Your task to perform on an android device: View the shopping cart on costco.com. Add "dell alienware" to the cart on costco.com Image 0: 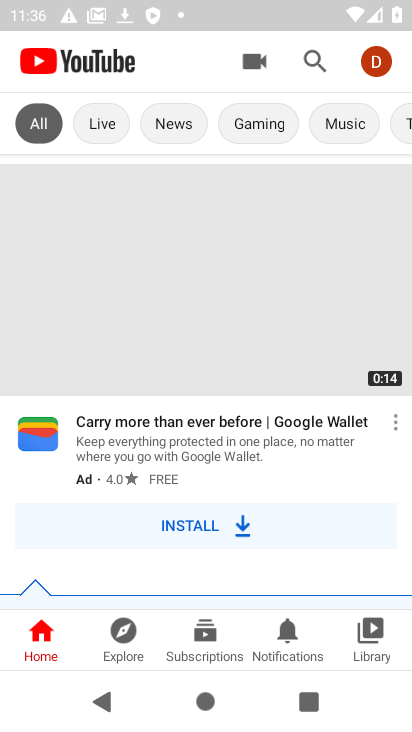
Step 0: press home button
Your task to perform on an android device: View the shopping cart on costco.com. Add "dell alienware" to the cart on costco.com Image 1: 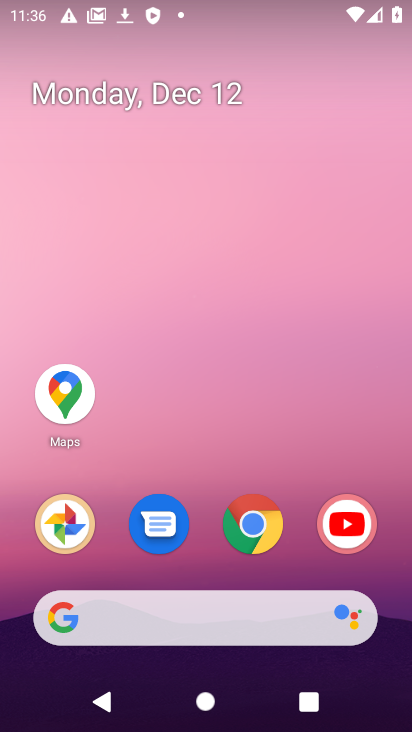
Step 1: click (253, 536)
Your task to perform on an android device: View the shopping cart on costco.com. Add "dell alienware" to the cart on costco.com Image 2: 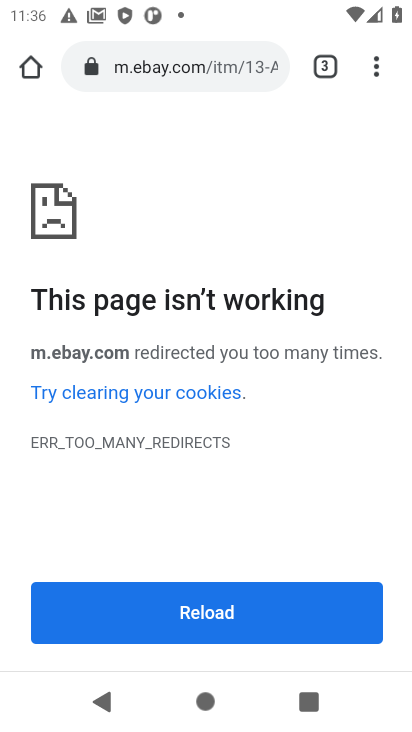
Step 2: click (170, 73)
Your task to perform on an android device: View the shopping cart on costco.com. Add "dell alienware" to the cart on costco.com Image 3: 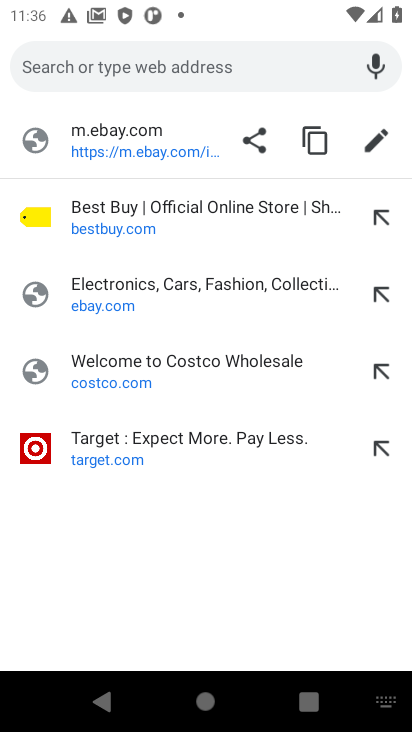
Step 3: click (97, 388)
Your task to perform on an android device: View the shopping cart on costco.com. Add "dell alienware" to the cart on costco.com Image 4: 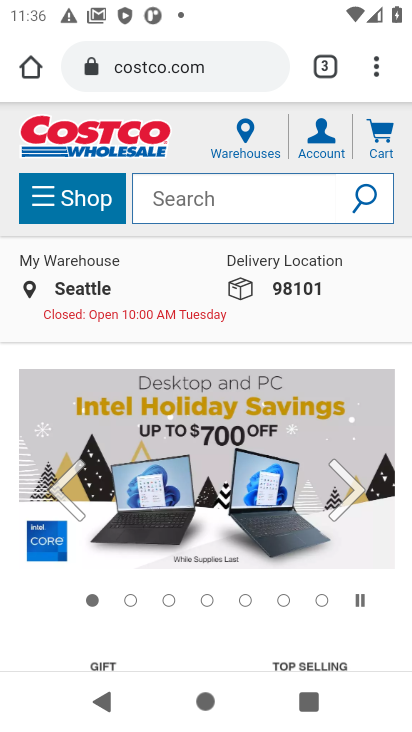
Step 4: click (384, 141)
Your task to perform on an android device: View the shopping cart on costco.com. Add "dell alienware" to the cart on costco.com Image 5: 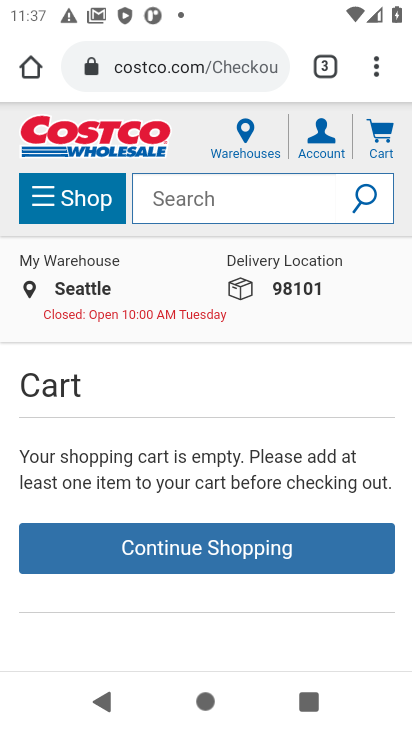
Step 5: click (186, 206)
Your task to perform on an android device: View the shopping cart on costco.com. Add "dell alienware" to the cart on costco.com Image 6: 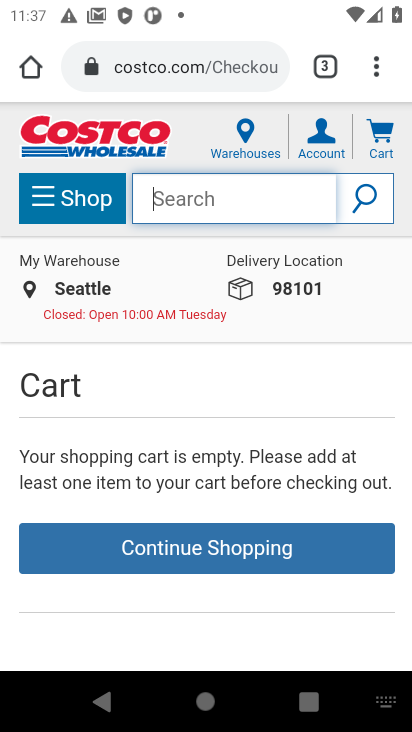
Step 6: type "dell alienware"
Your task to perform on an android device: View the shopping cart on costco.com. Add "dell alienware" to the cart on costco.com Image 7: 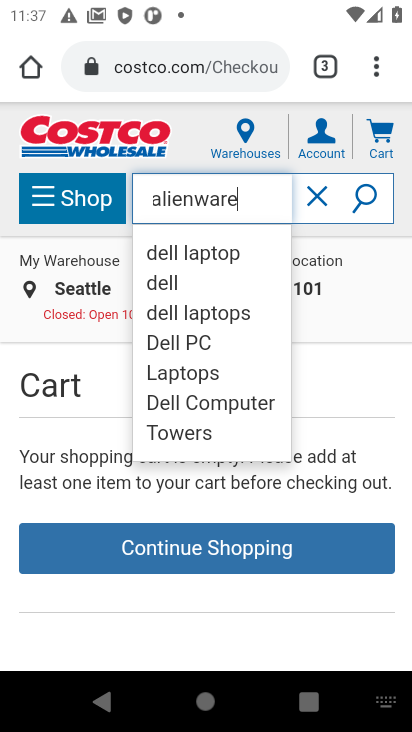
Step 7: click (374, 199)
Your task to perform on an android device: View the shopping cart on costco.com. Add "dell alienware" to the cart on costco.com Image 8: 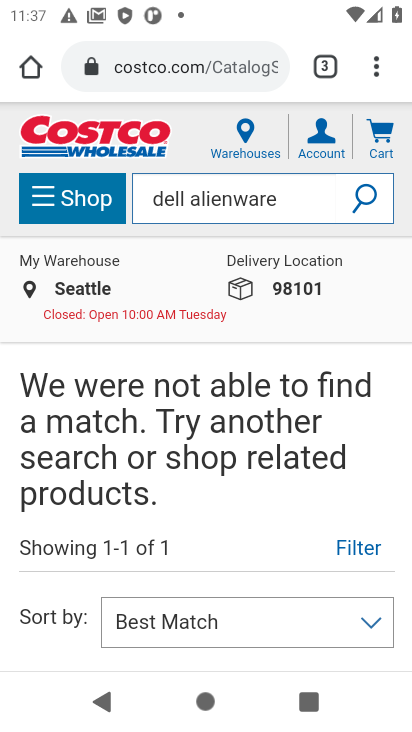
Step 8: task complete